Your task to perform on an android device: stop showing notifications on the lock screen Image 0: 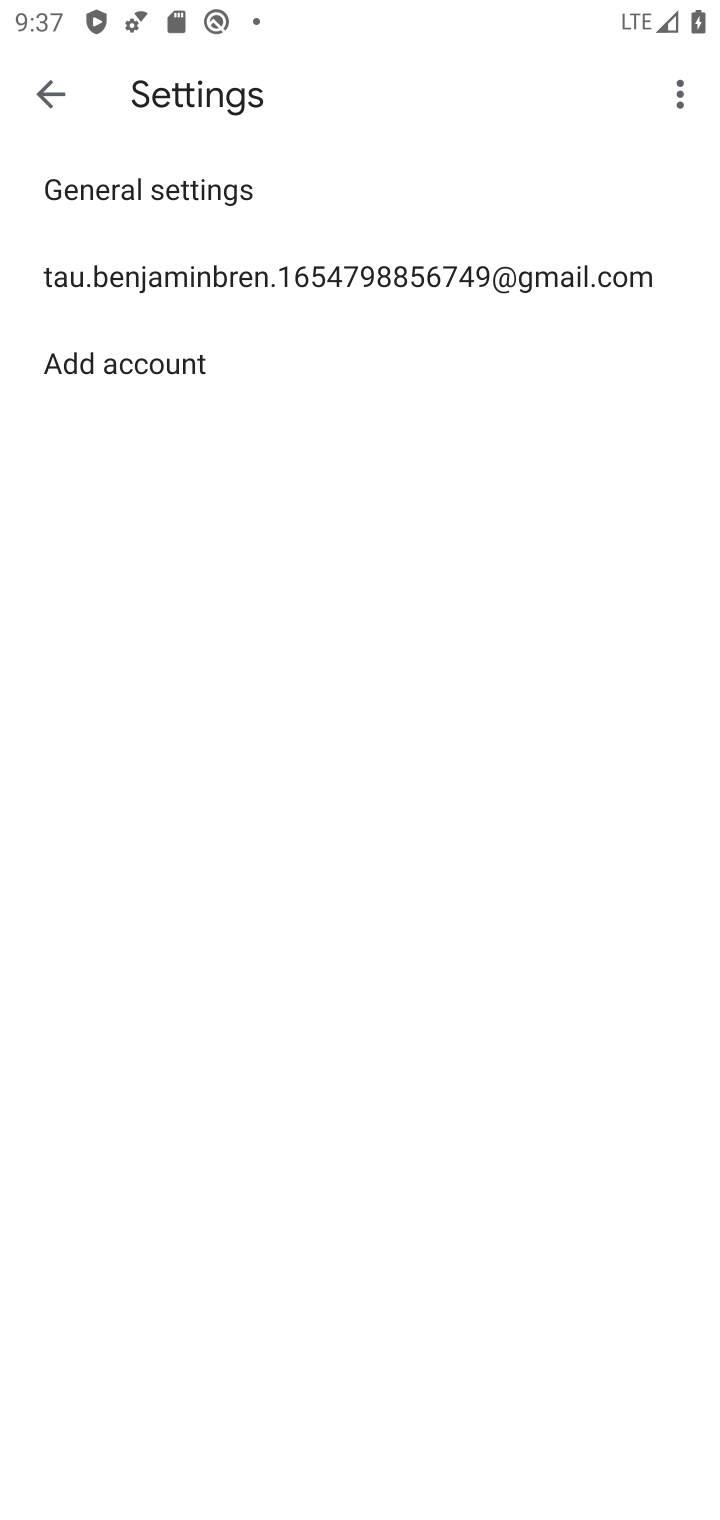
Step 0: press home button
Your task to perform on an android device: stop showing notifications on the lock screen Image 1: 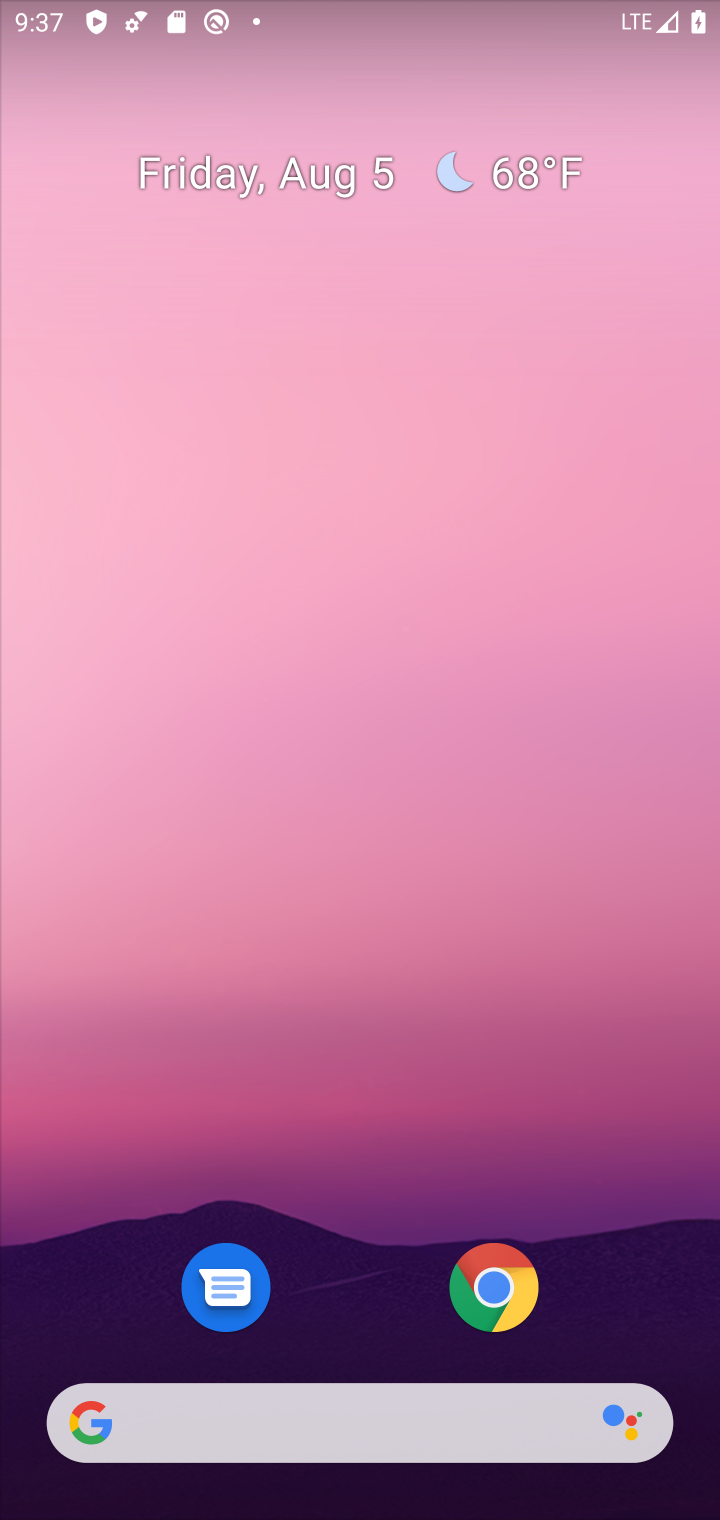
Step 1: drag from (344, 1312) to (368, 163)
Your task to perform on an android device: stop showing notifications on the lock screen Image 2: 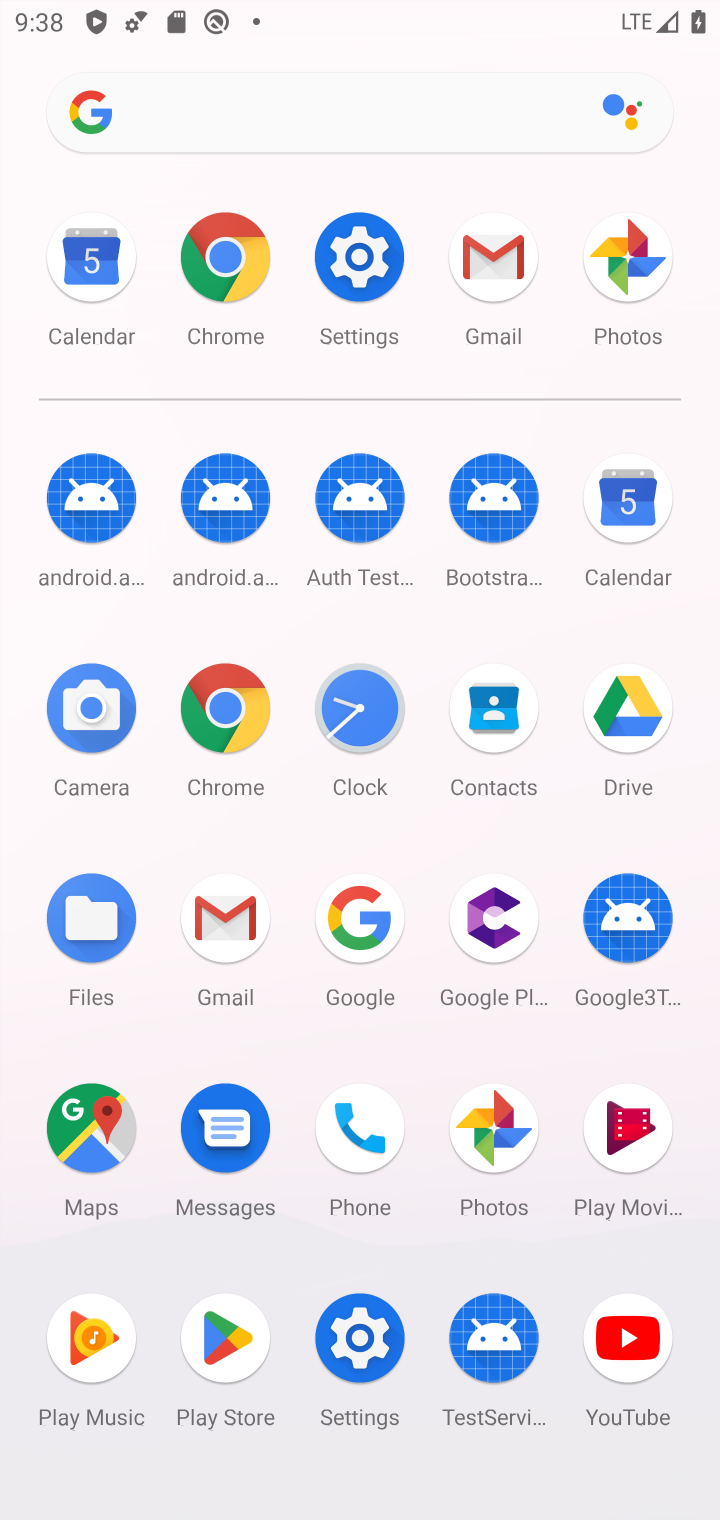
Step 2: click (359, 266)
Your task to perform on an android device: stop showing notifications on the lock screen Image 3: 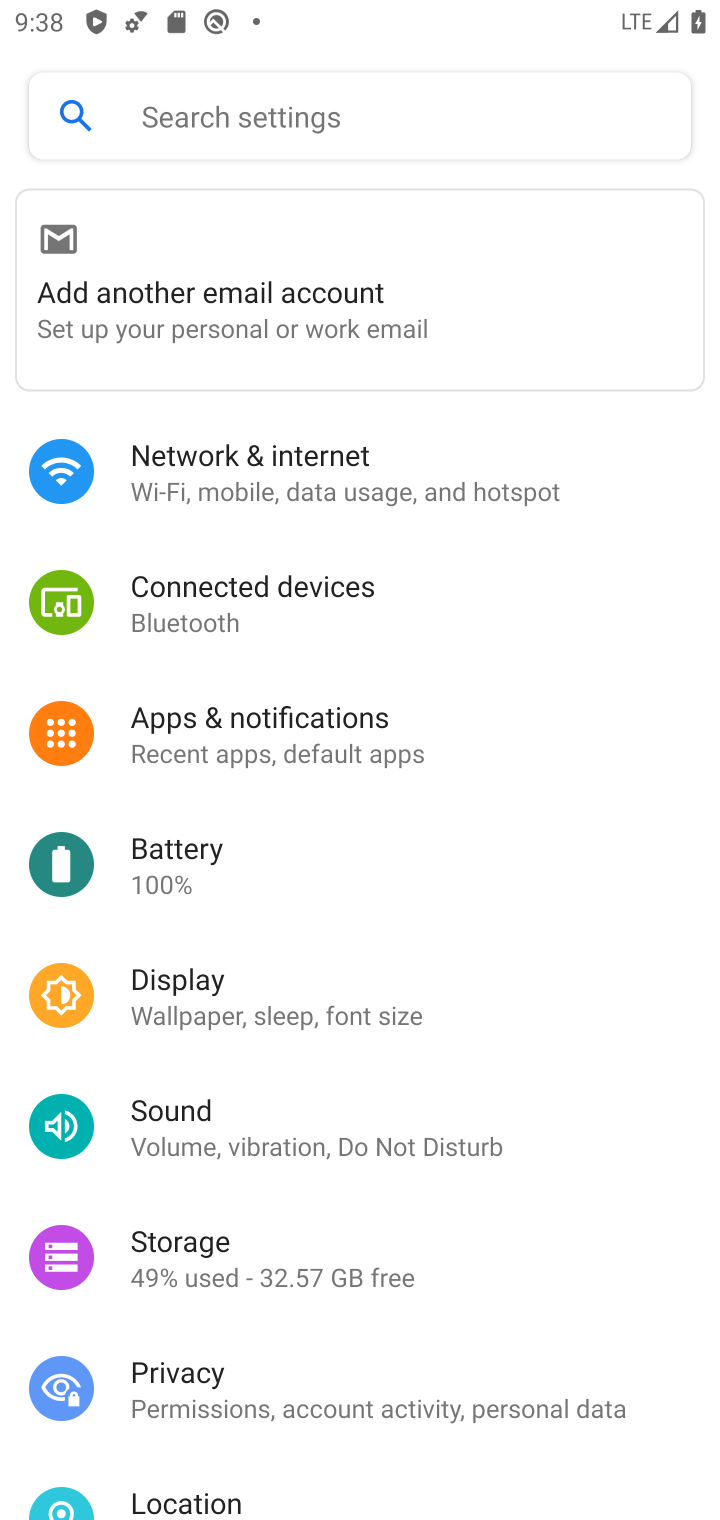
Step 3: click (230, 750)
Your task to perform on an android device: stop showing notifications on the lock screen Image 4: 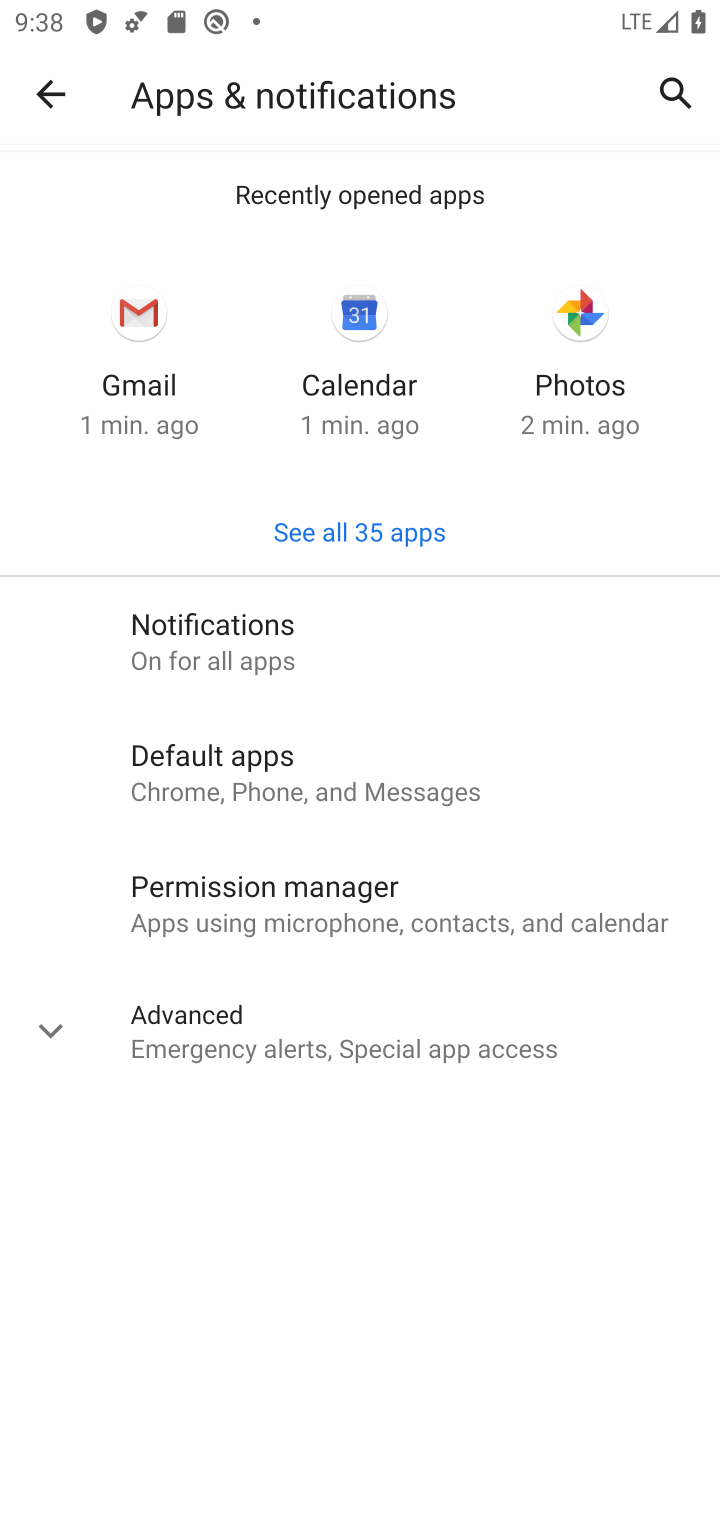
Step 4: click (182, 639)
Your task to perform on an android device: stop showing notifications on the lock screen Image 5: 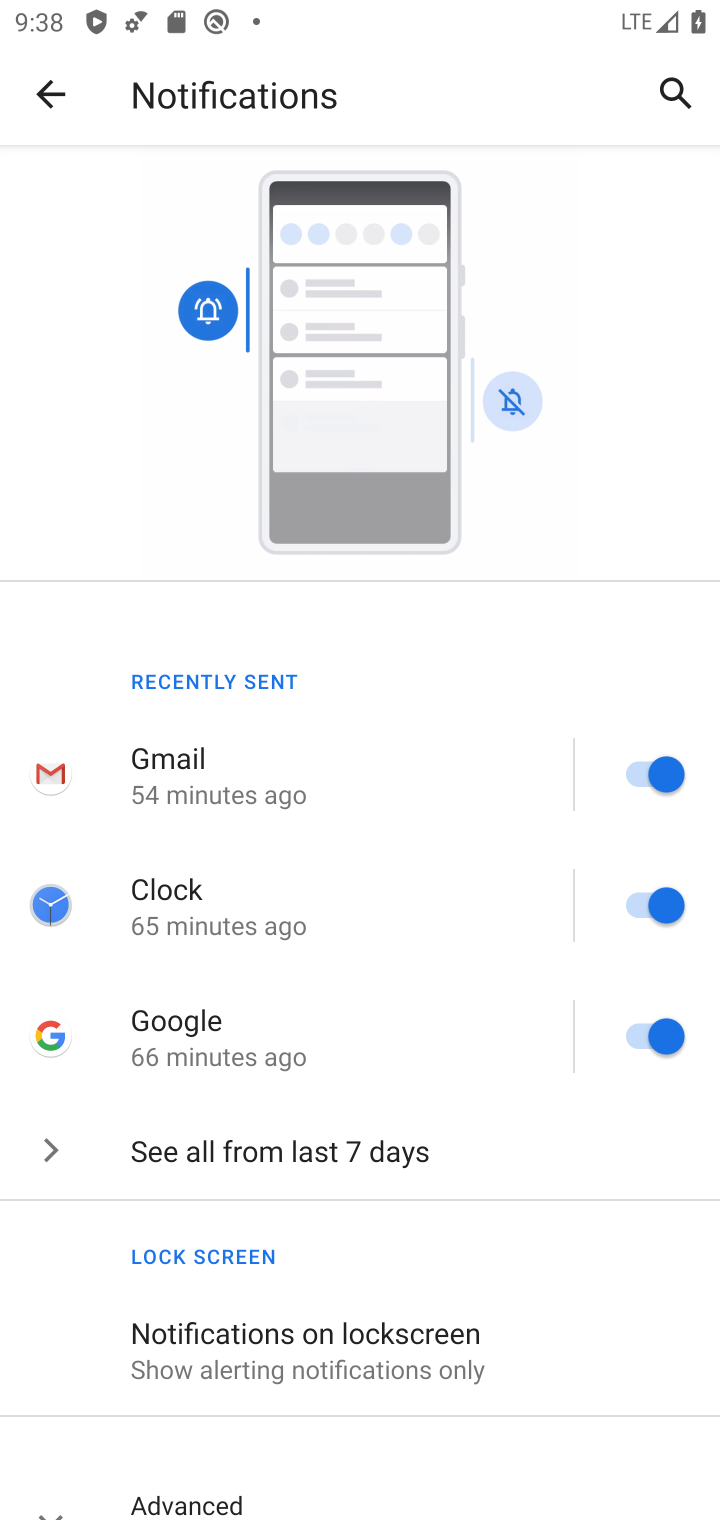
Step 5: click (415, 1360)
Your task to perform on an android device: stop showing notifications on the lock screen Image 6: 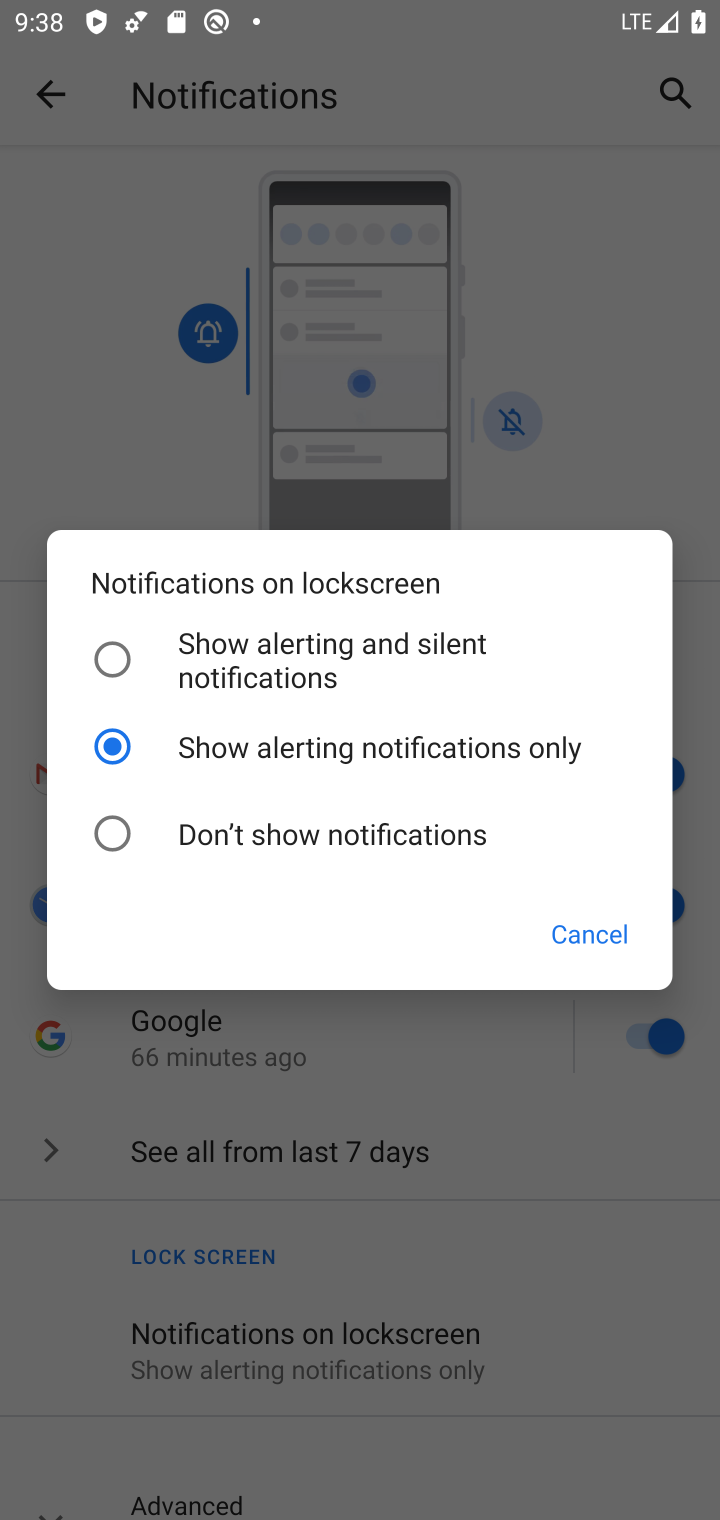
Step 6: click (119, 833)
Your task to perform on an android device: stop showing notifications on the lock screen Image 7: 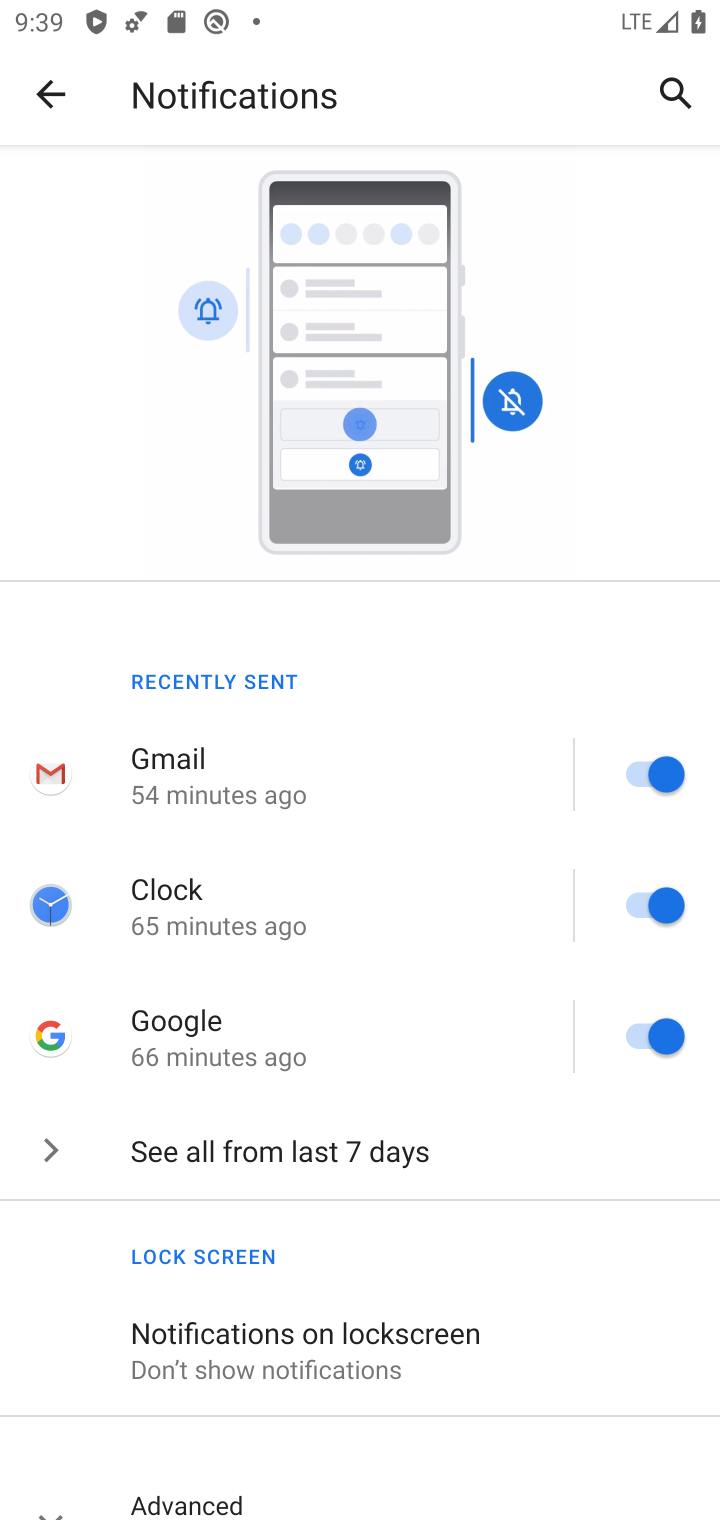
Step 7: task complete